Your task to perform on an android device: Open the calendar app, open the side menu, and click the "Day" option Image 0: 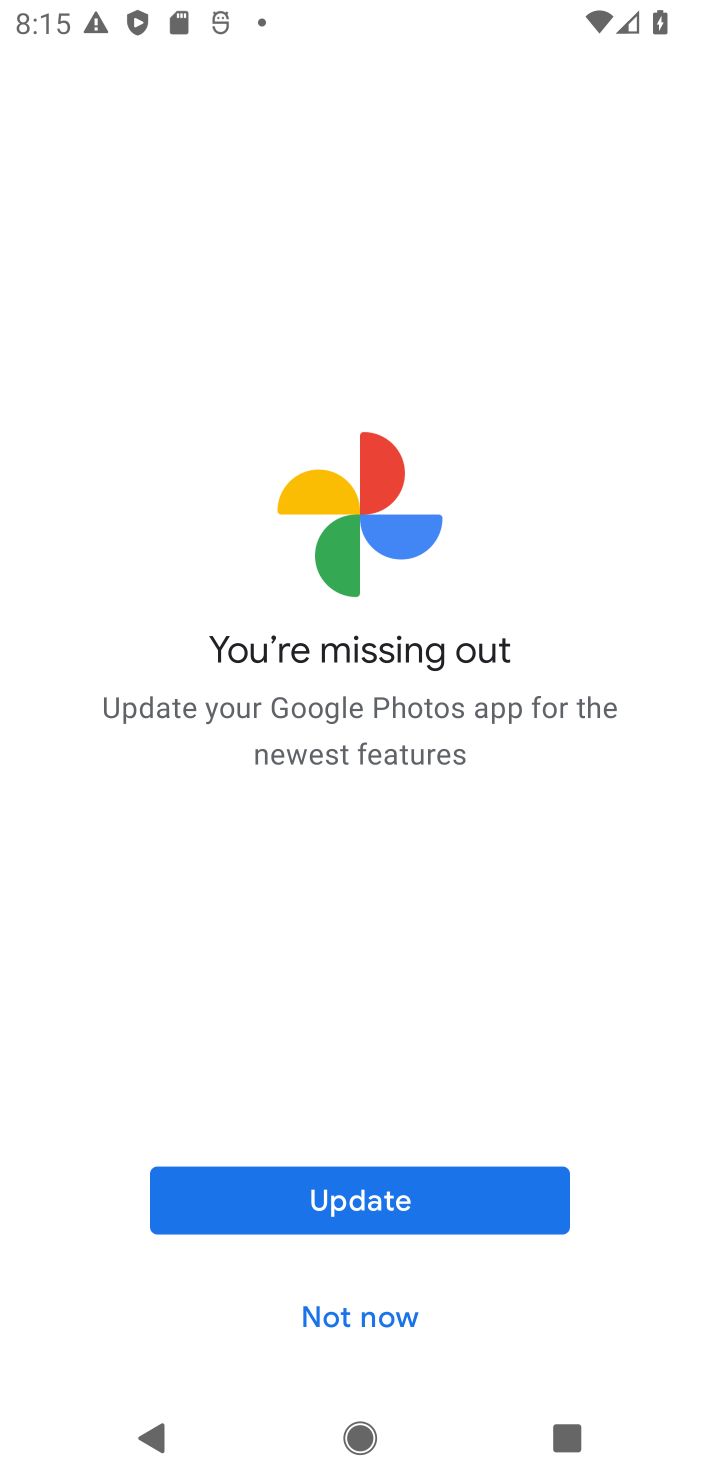
Step 0: press home button
Your task to perform on an android device: Open the calendar app, open the side menu, and click the "Day" option Image 1: 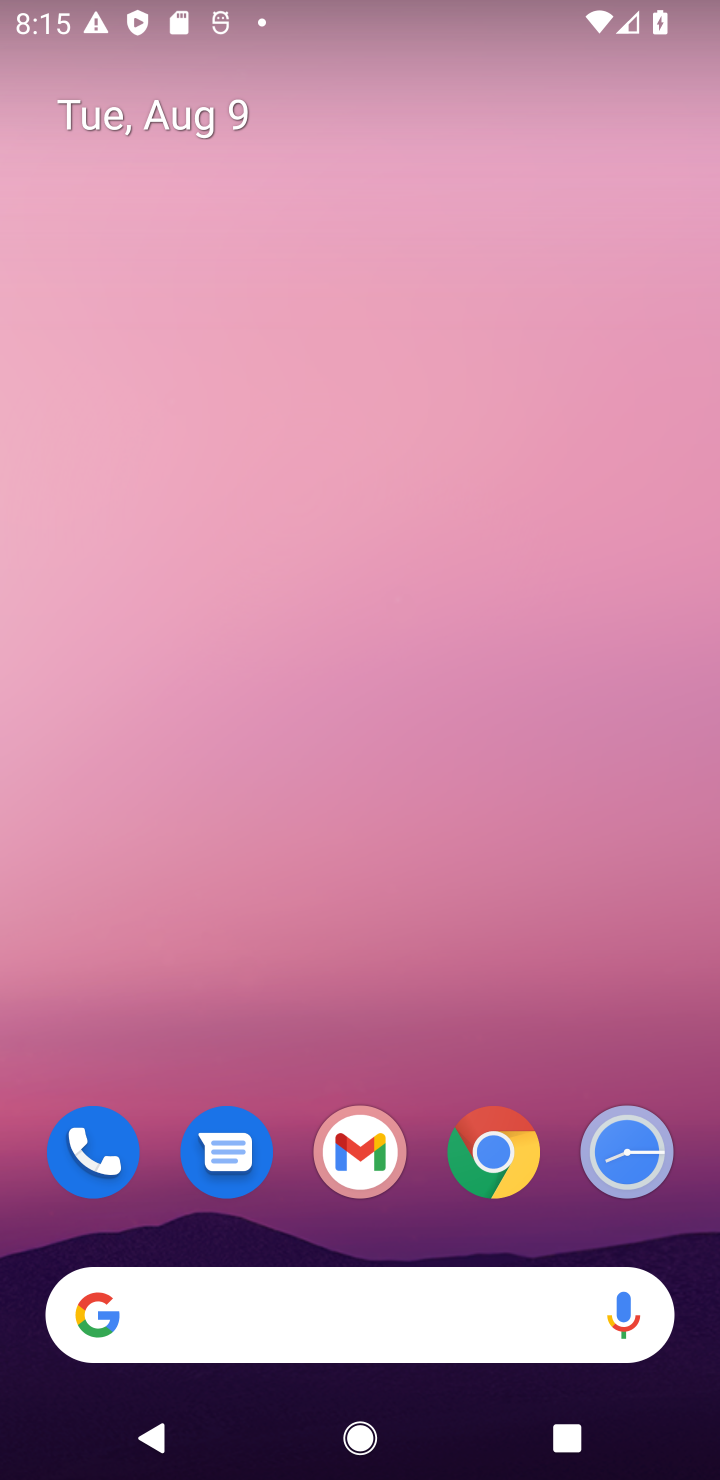
Step 1: click (172, 103)
Your task to perform on an android device: Open the calendar app, open the side menu, and click the "Day" option Image 2: 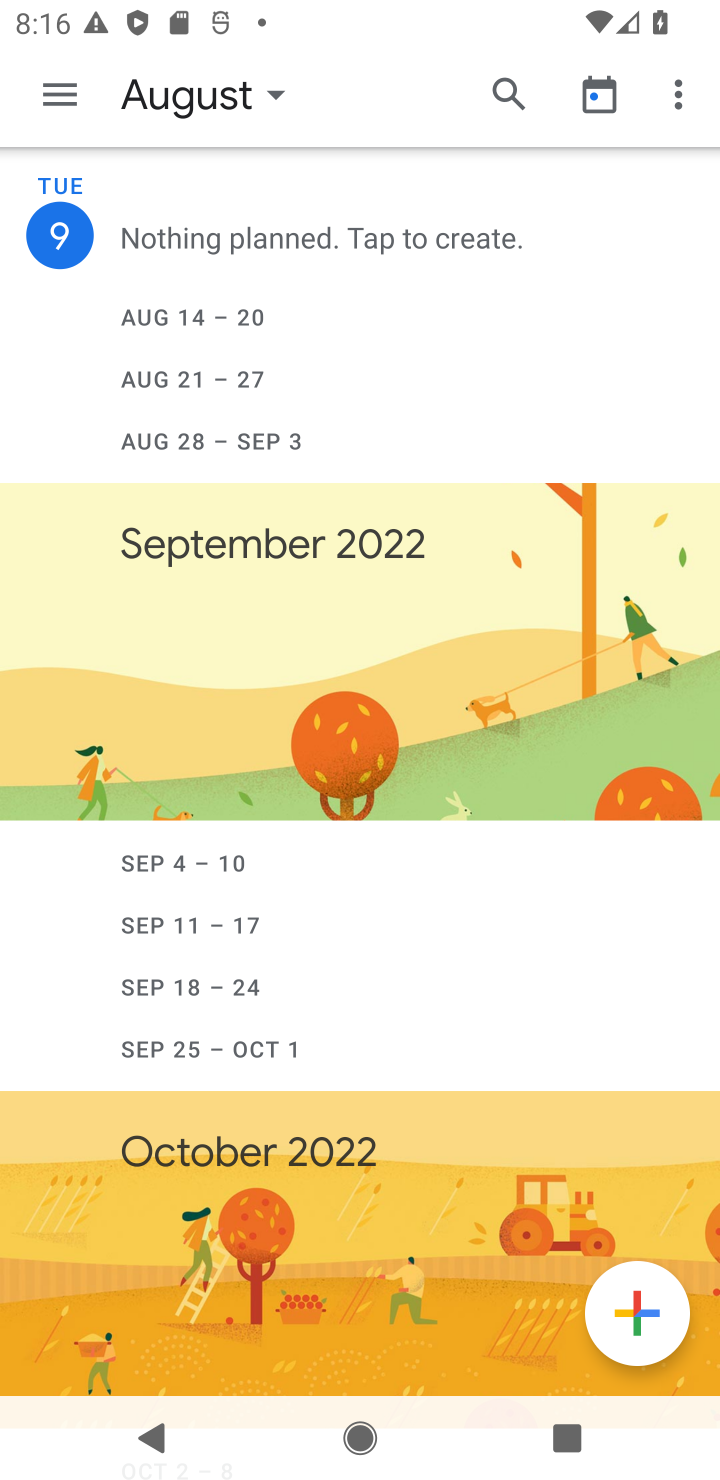
Step 2: click (75, 96)
Your task to perform on an android device: Open the calendar app, open the side menu, and click the "Day" option Image 3: 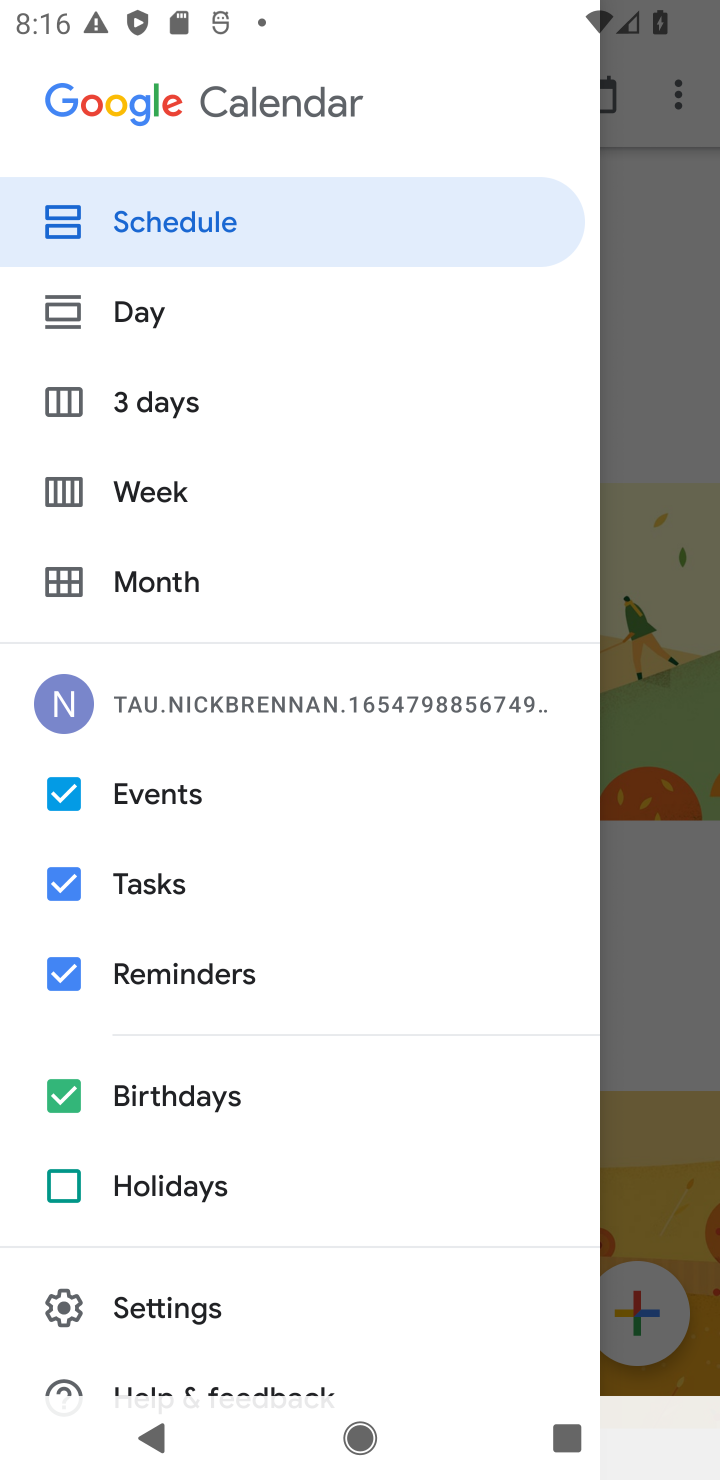
Step 3: click (171, 329)
Your task to perform on an android device: Open the calendar app, open the side menu, and click the "Day" option Image 4: 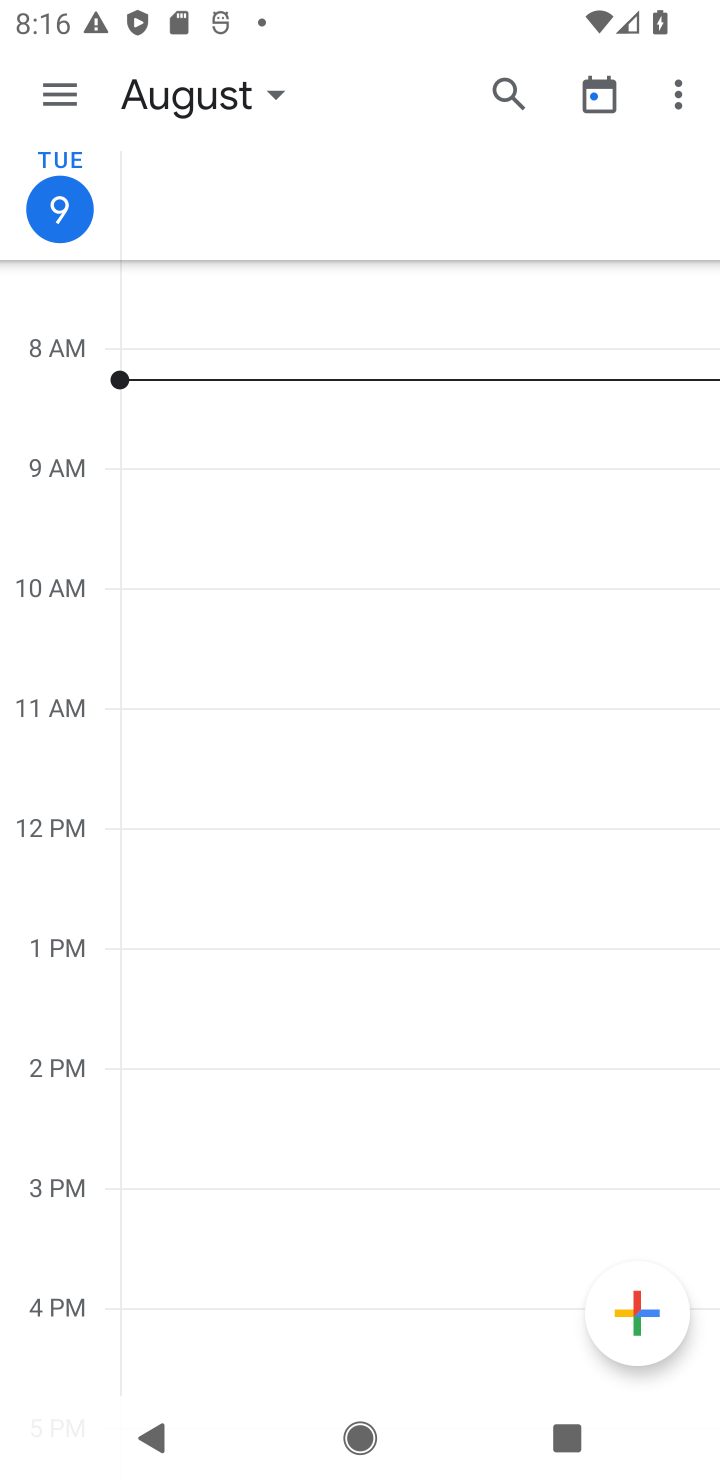
Step 4: task complete